Your task to perform on an android device: open app "Adobe Acrobat Reader: Edit PDF" Image 0: 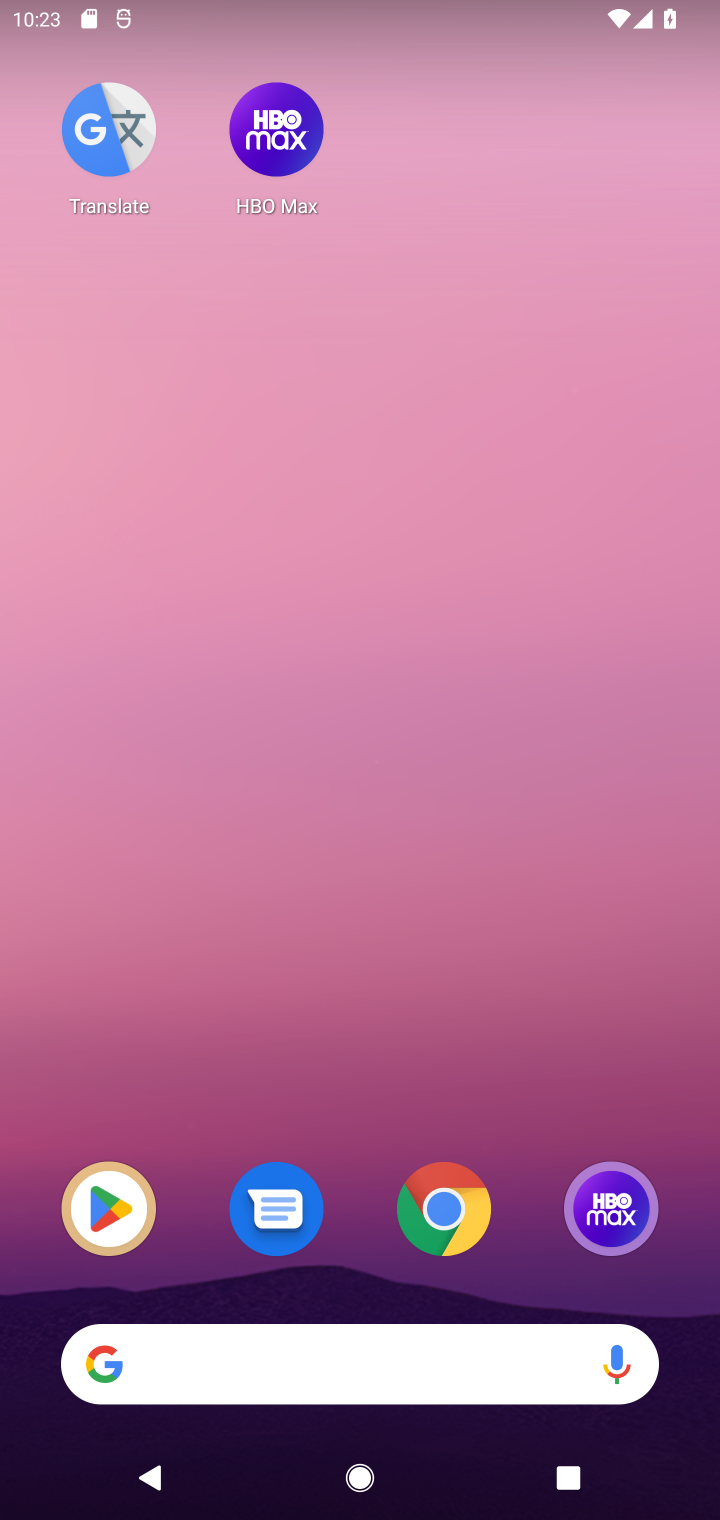
Step 0: drag from (519, 1045) to (542, 0)
Your task to perform on an android device: open app "Adobe Acrobat Reader: Edit PDF" Image 1: 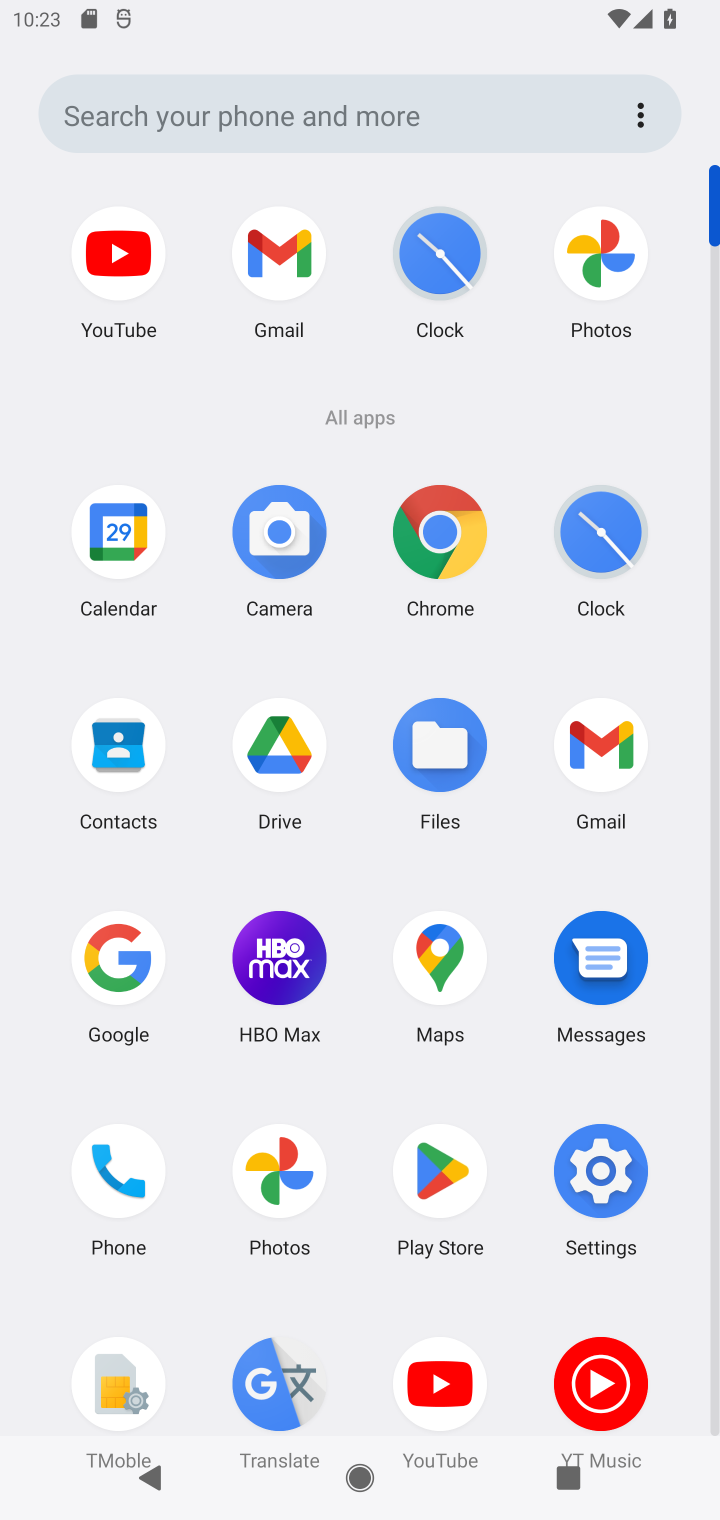
Step 1: click (444, 1180)
Your task to perform on an android device: open app "Adobe Acrobat Reader: Edit PDF" Image 2: 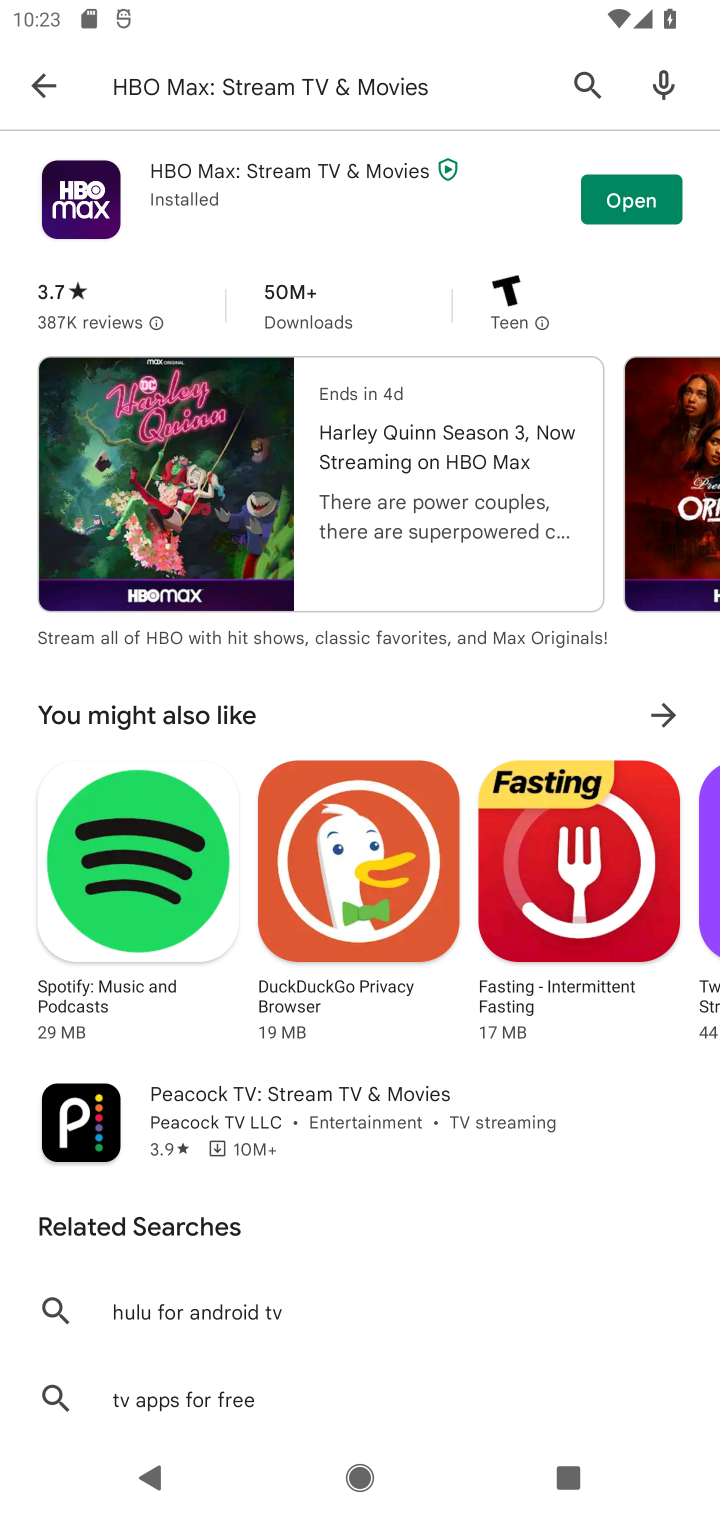
Step 2: click (308, 81)
Your task to perform on an android device: open app "Adobe Acrobat Reader: Edit PDF" Image 3: 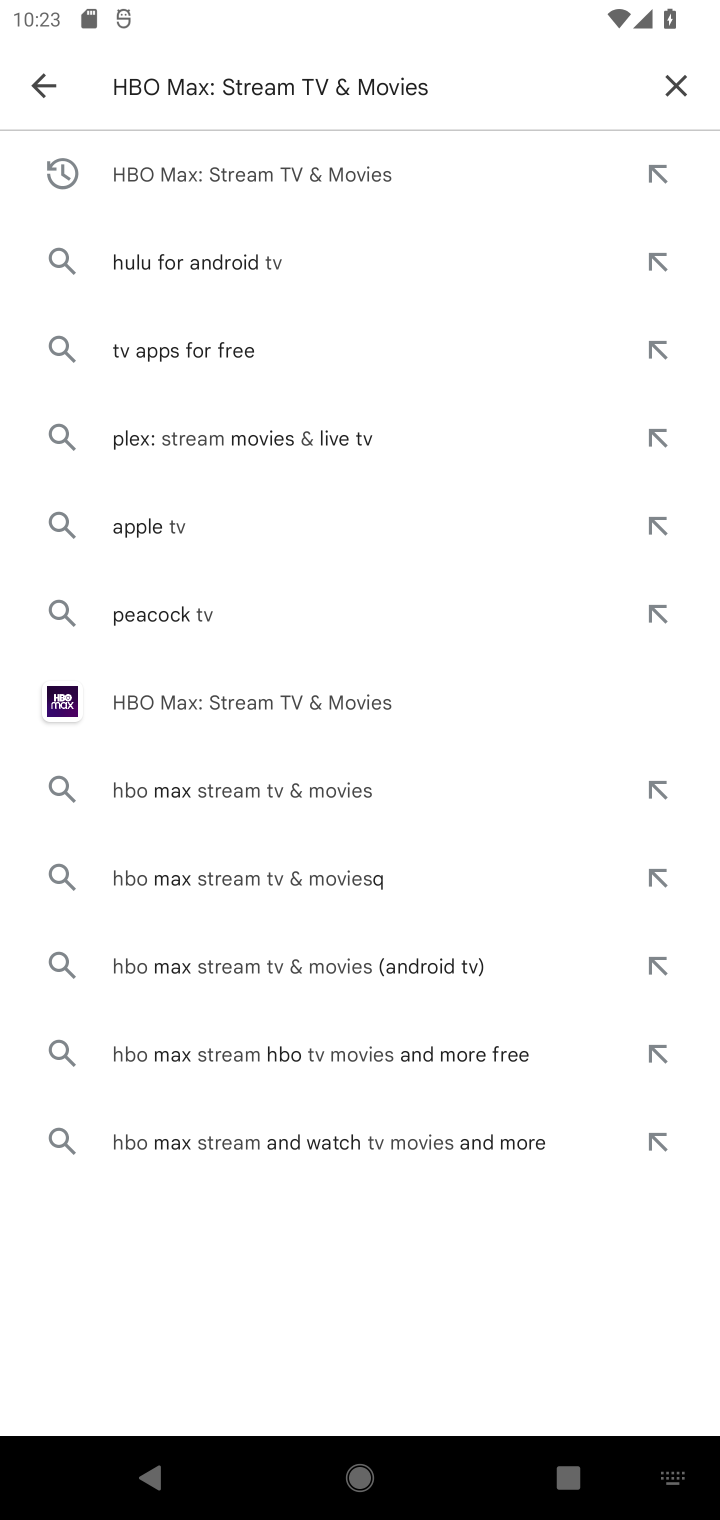
Step 3: click (667, 69)
Your task to perform on an android device: open app "Adobe Acrobat Reader: Edit PDF" Image 4: 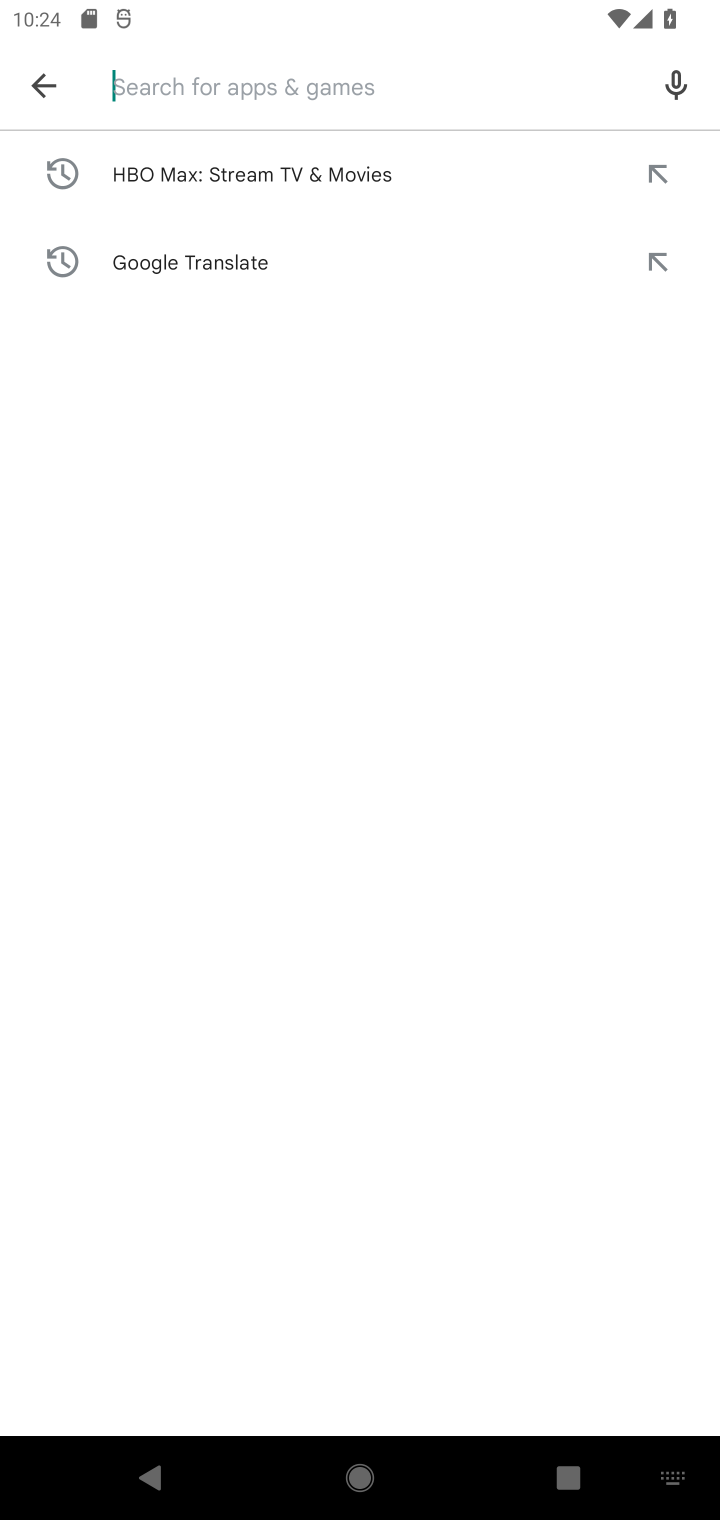
Step 4: type "Adobe Acrobat Reader: Edit PDF"
Your task to perform on an android device: open app "Adobe Acrobat Reader: Edit PDF" Image 5: 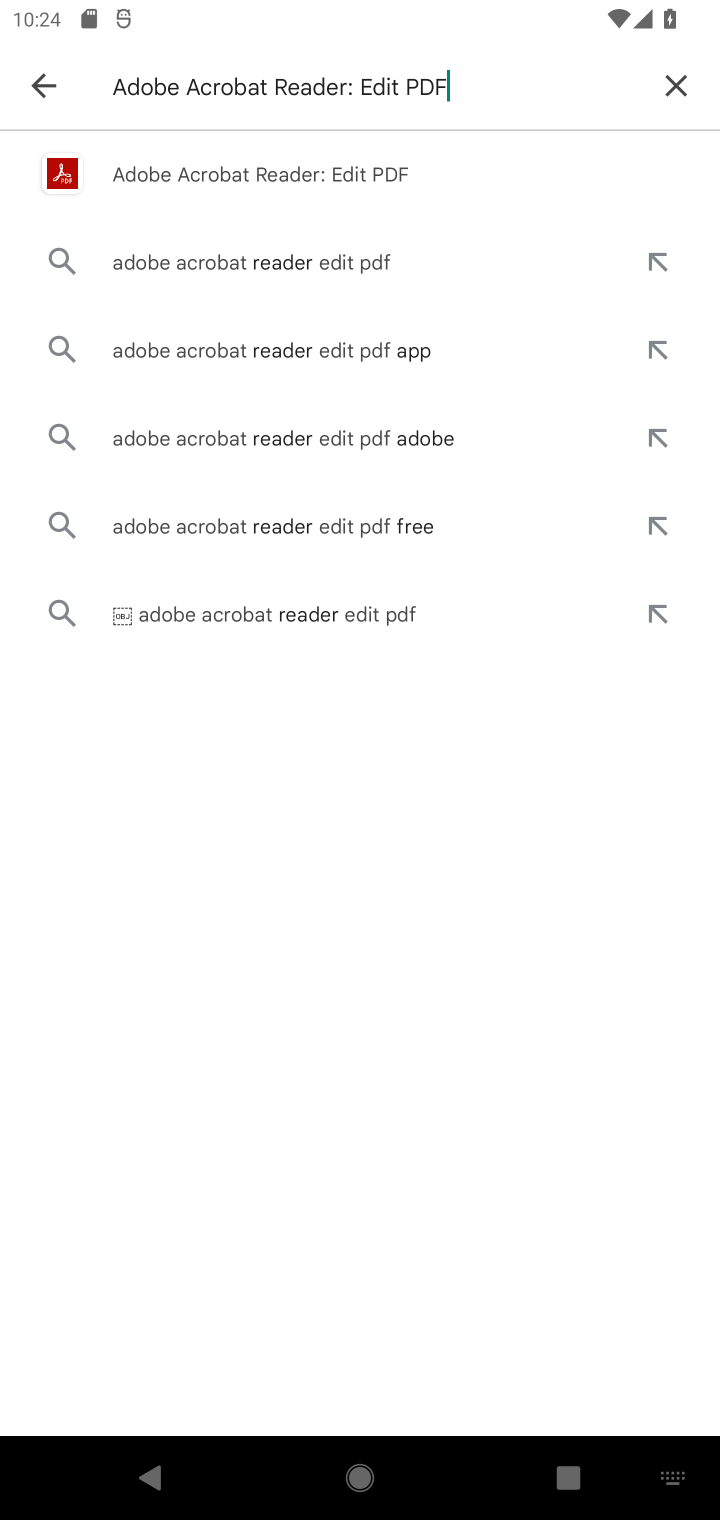
Step 5: press enter
Your task to perform on an android device: open app "Adobe Acrobat Reader: Edit PDF" Image 6: 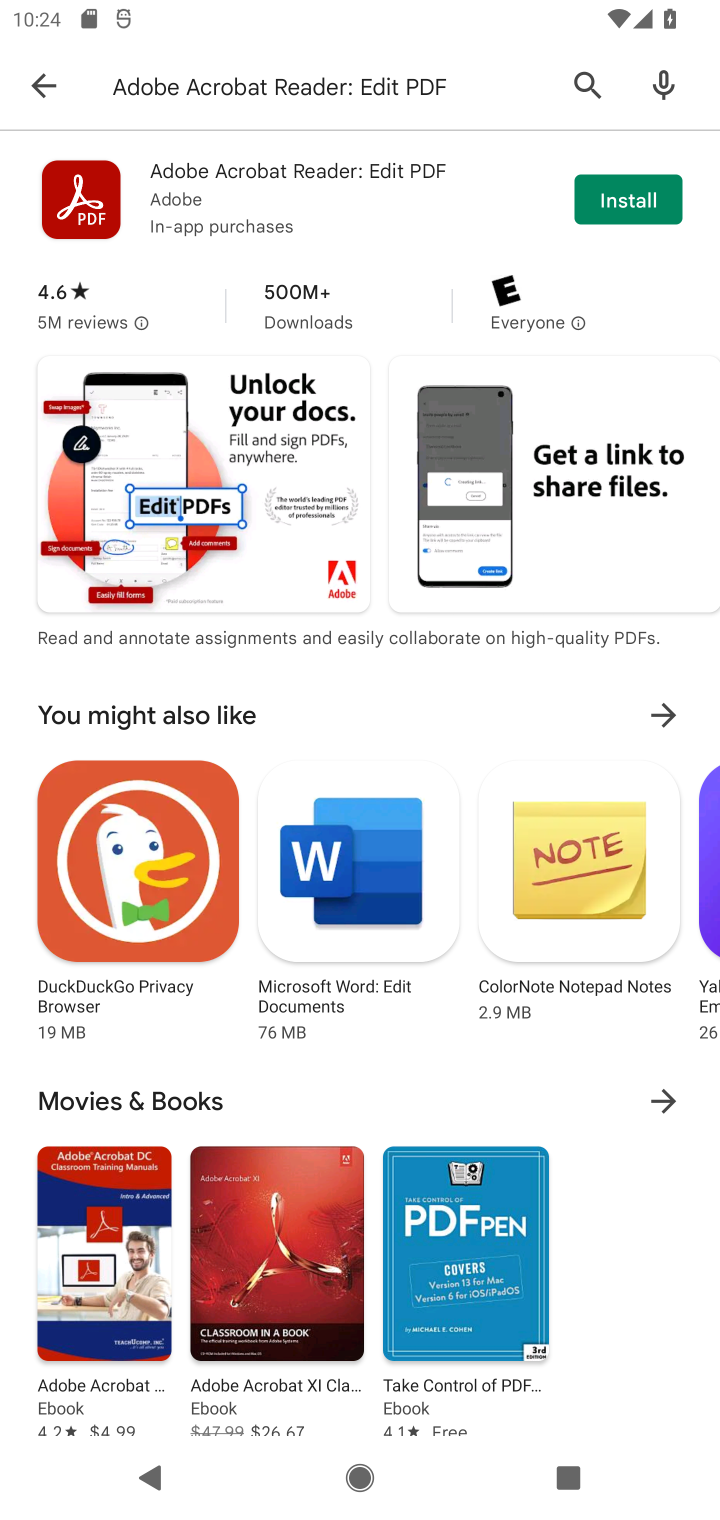
Step 6: task complete